Your task to perform on an android device: Open notification settings Image 0: 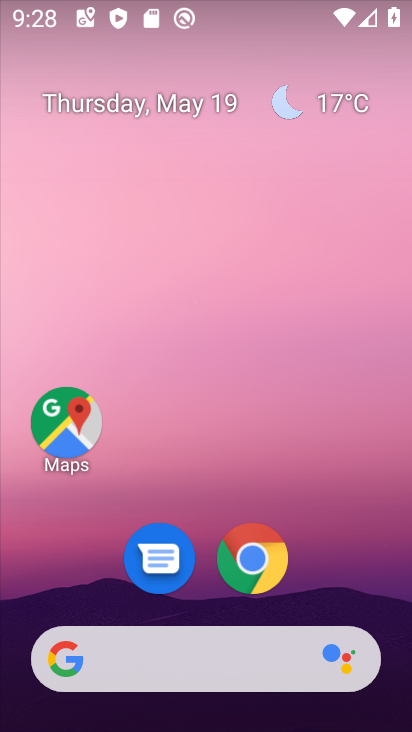
Step 0: drag from (214, 719) to (196, 187)
Your task to perform on an android device: Open notification settings Image 1: 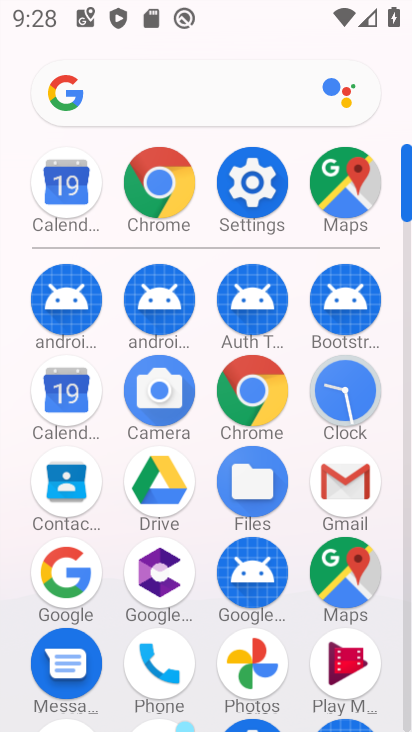
Step 1: click (246, 180)
Your task to perform on an android device: Open notification settings Image 2: 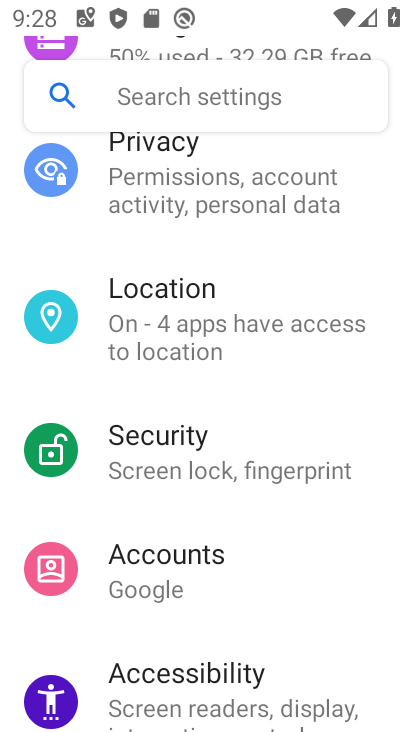
Step 2: drag from (249, 241) to (247, 629)
Your task to perform on an android device: Open notification settings Image 3: 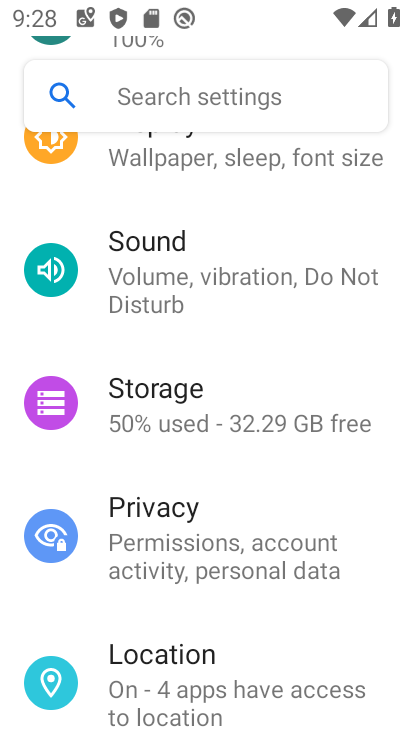
Step 3: drag from (244, 234) to (257, 634)
Your task to perform on an android device: Open notification settings Image 4: 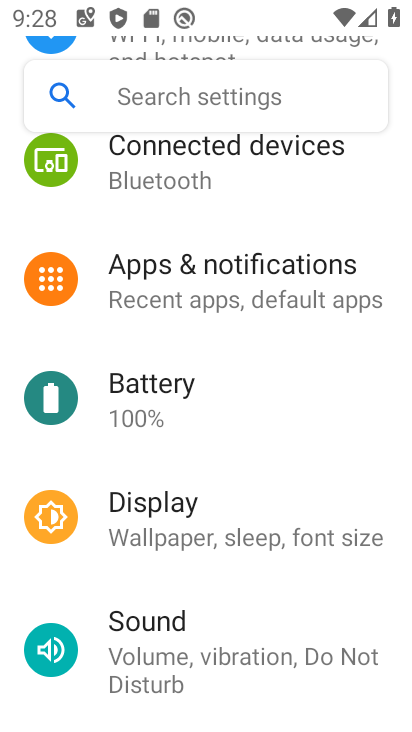
Step 4: click (214, 269)
Your task to perform on an android device: Open notification settings Image 5: 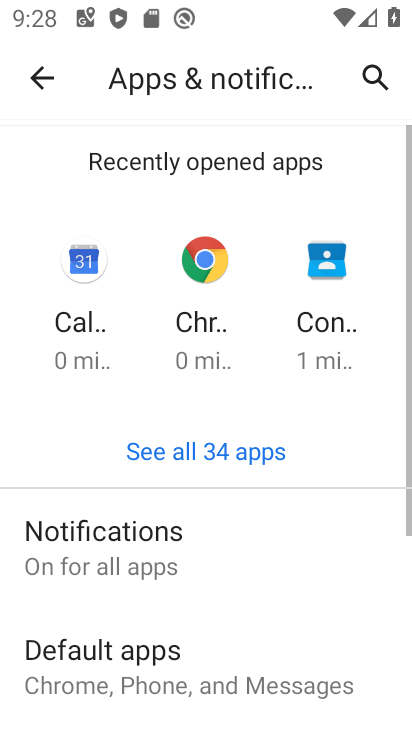
Step 5: drag from (259, 628) to (260, 368)
Your task to perform on an android device: Open notification settings Image 6: 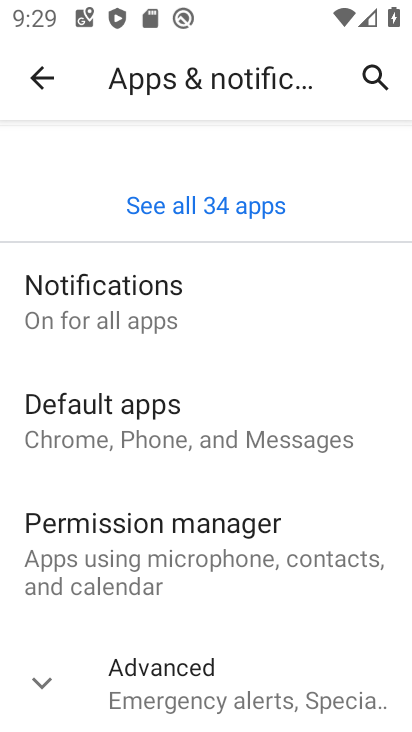
Step 6: click (121, 310)
Your task to perform on an android device: Open notification settings Image 7: 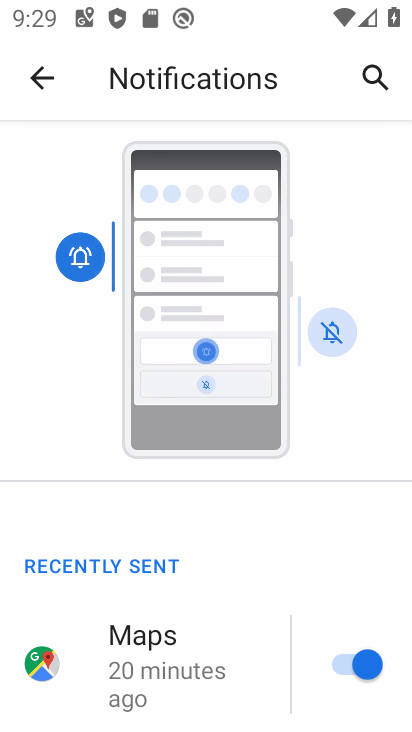
Step 7: task complete